Your task to perform on an android device: Go to Wikipedia Image 0: 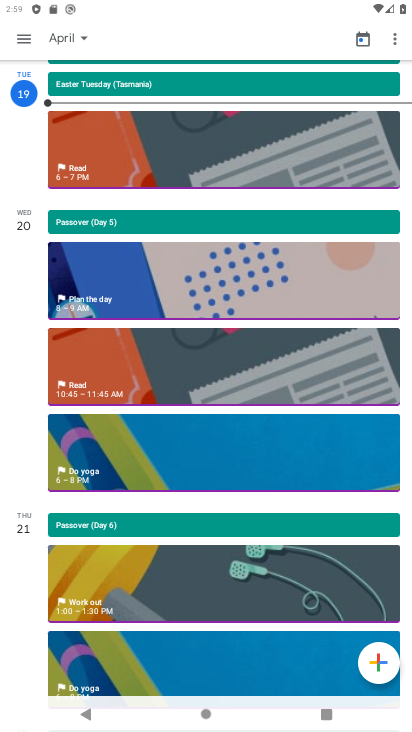
Step 0: press home button
Your task to perform on an android device: Go to Wikipedia Image 1: 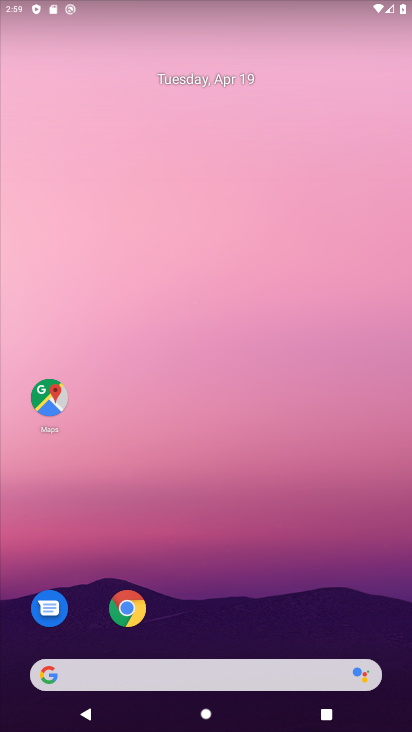
Step 1: drag from (254, 720) to (215, 50)
Your task to perform on an android device: Go to Wikipedia Image 2: 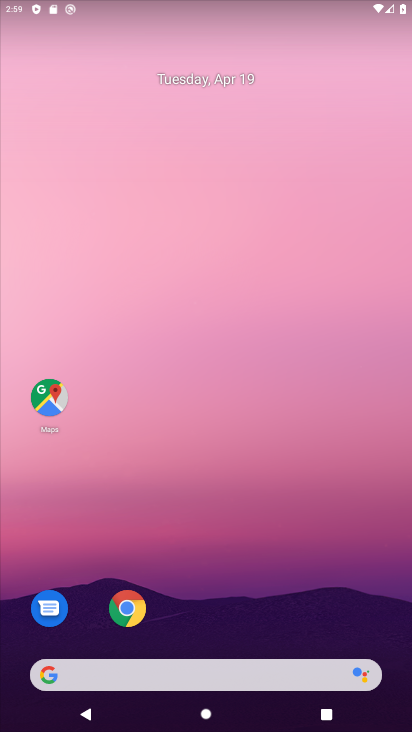
Step 2: drag from (278, 709) to (304, 327)
Your task to perform on an android device: Go to Wikipedia Image 3: 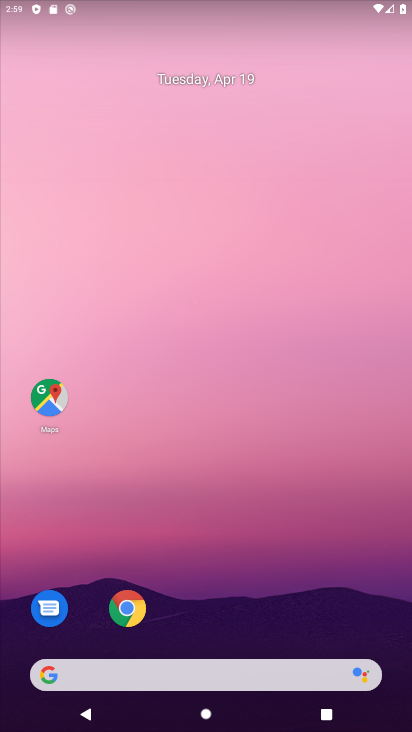
Step 3: drag from (251, 720) to (275, 239)
Your task to perform on an android device: Go to Wikipedia Image 4: 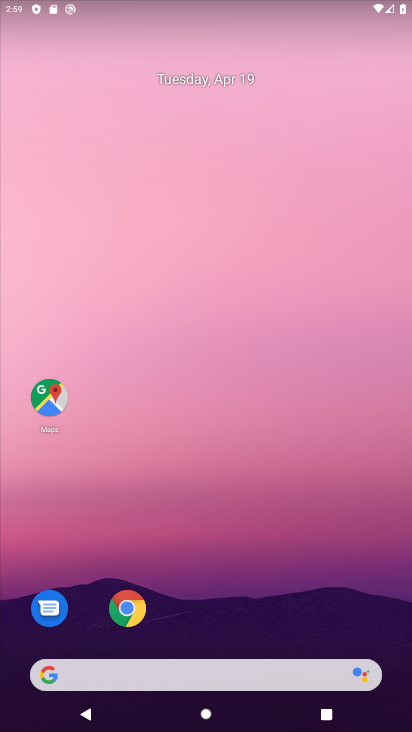
Step 4: drag from (252, 706) to (406, 1)
Your task to perform on an android device: Go to Wikipedia Image 5: 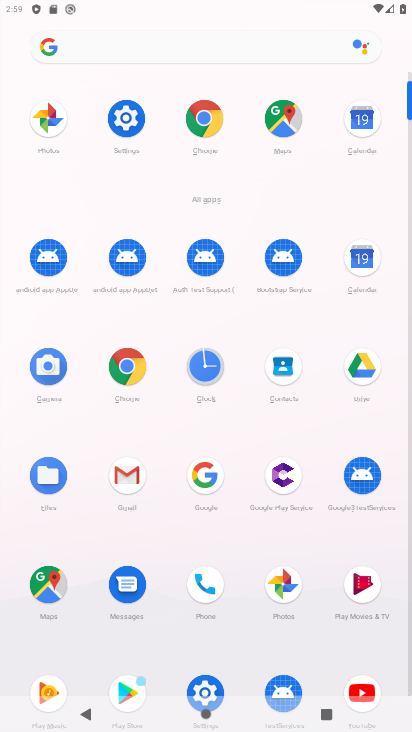
Step 5: click (134, 380)
Your task to perform on an android device: Go to Wikipedia Image 6: 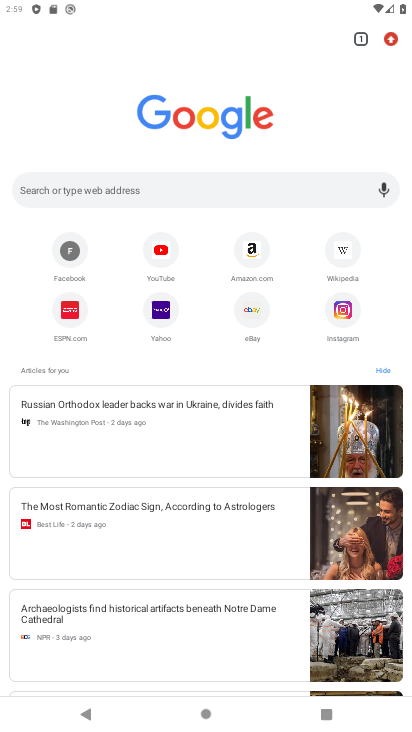
Step 6: click (352, 254)
Your task to perform on an android device: Go to Wikipedia Image 7: 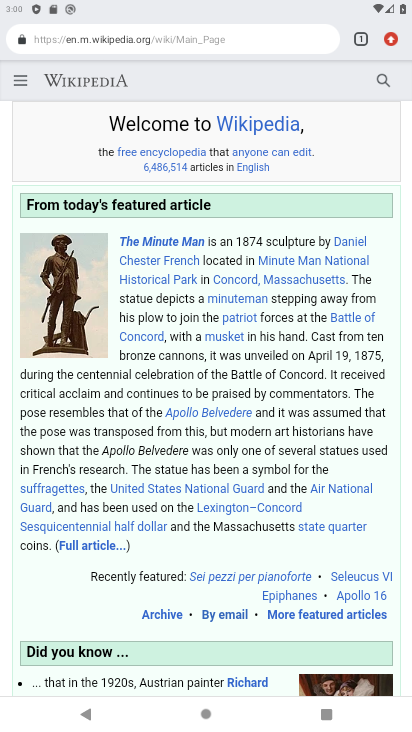
Step 7: task complete